Your task to perform on an android device: turn pop-ups off in chrome Image 0: 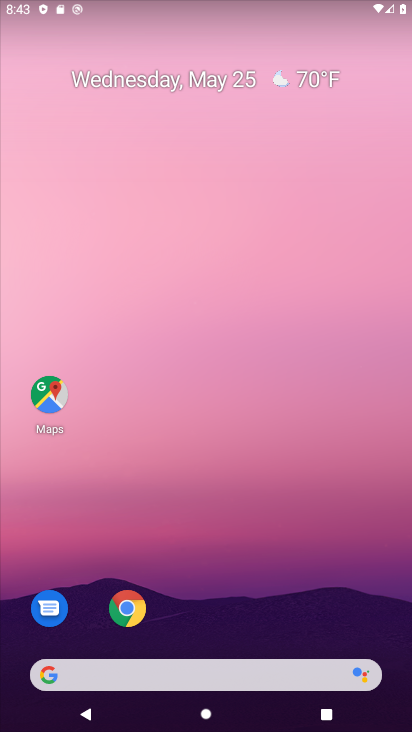
Step 0: click (129, 606)
Your task to perform on an android device: turn pop-ups off in chrome Image 1: 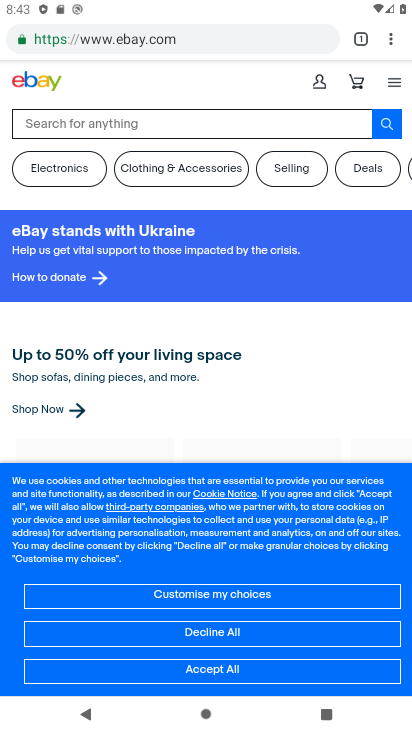
Step 1: click (394, 40)
Your task to perform on an android device: turn pop-ups off in chrome Image 2: 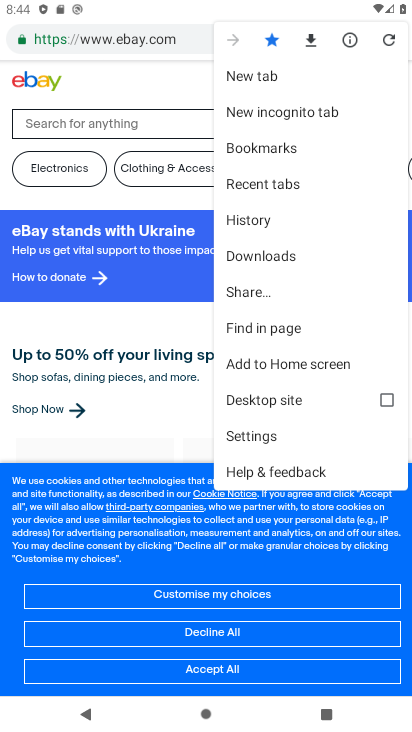
Step 2: click (286, 430)
Your task to perform on an android device: turn pop-ups off in chrome Image 3: 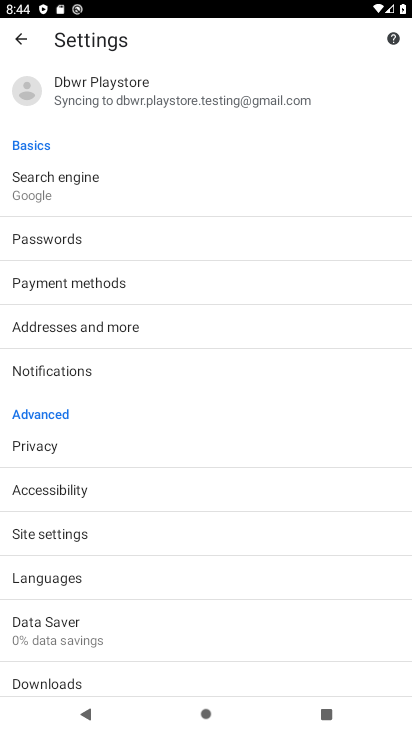
Step 3: drag from (236, 619) to (263, 437)
Your task to perform on an android device: turn pop-ups off in chrome Image 4: 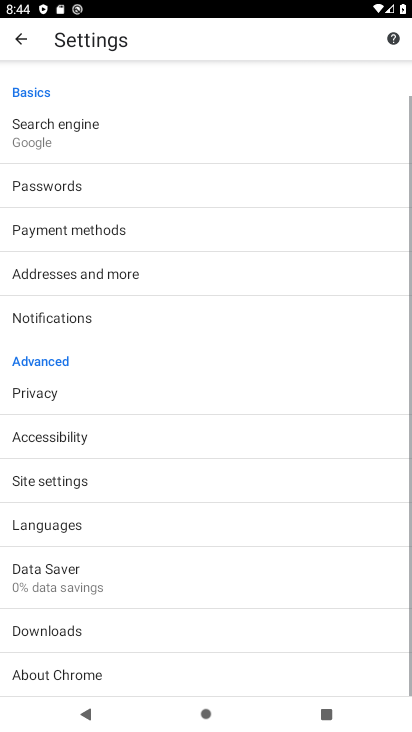
Step 4: click (106, 483)
Your task to perform on an android device: turn pop-ups off in chrome Image 5: 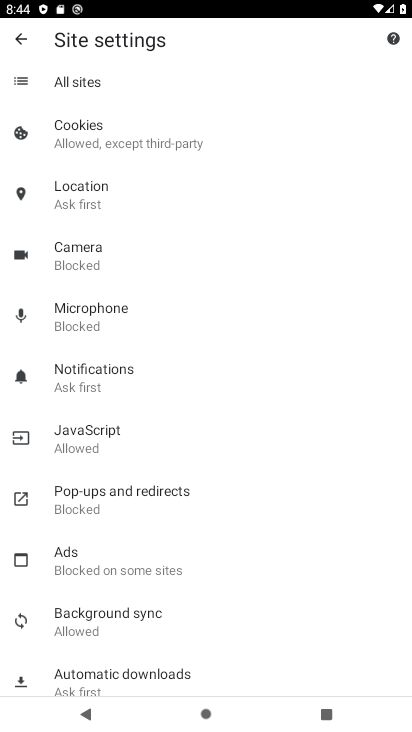
Step 5: click (124, 524)
Your task to perform on an android device: turn pop-ups off in chrome Image 6: 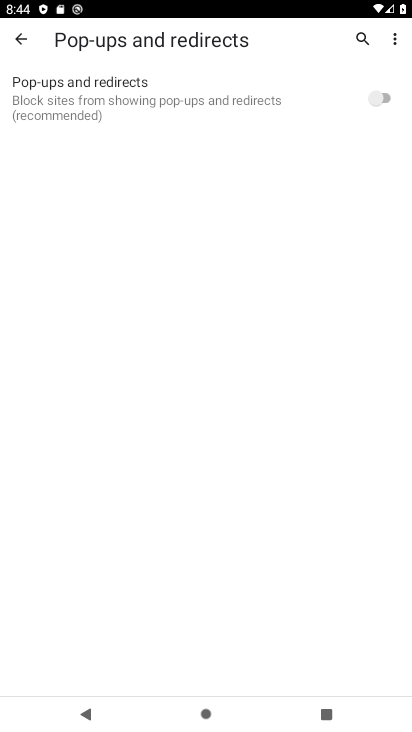
Step 6: task complete